Your task to perform on an android device: Open the stopwatch Image 0: 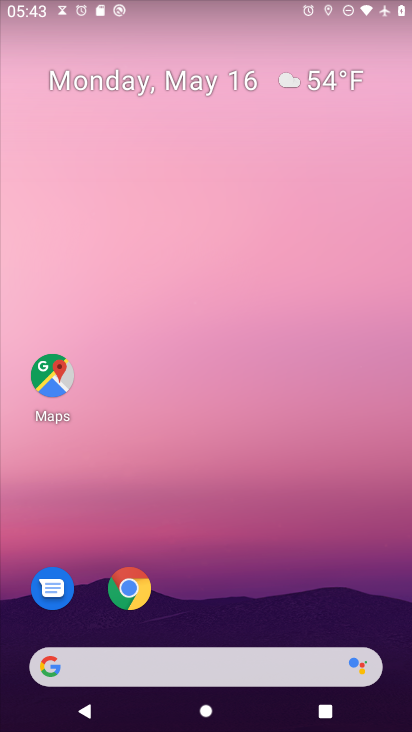
Step 0: drag from (262, 516) to (248, 43)
Your task to perform on an android device: Open the stopwatch Image 1: 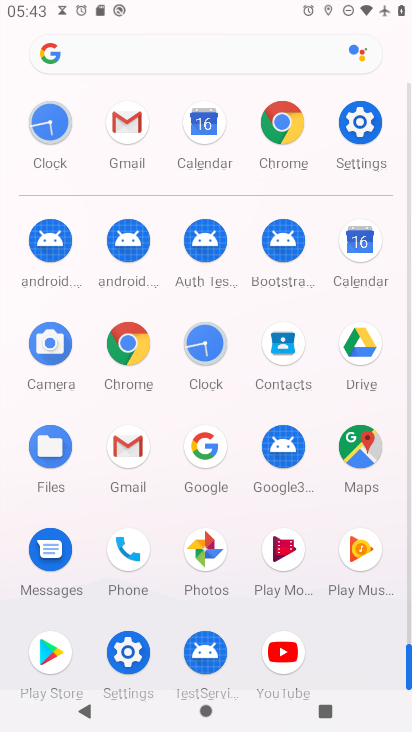
Step 1: drag from (15, 530) to (22, 225)
Your task to perform on an android device: Open the stopwatch Image 2: 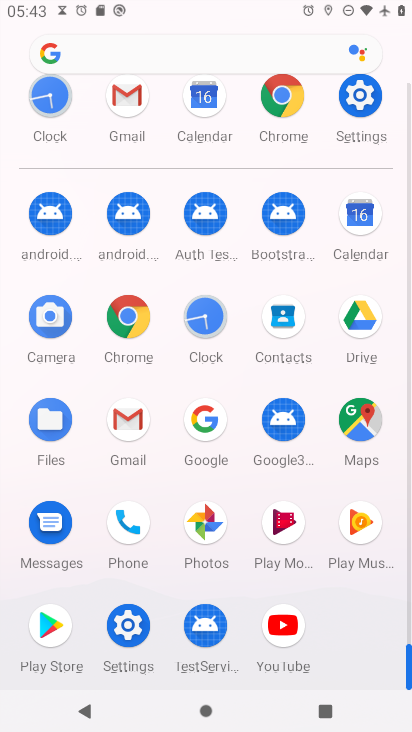
Step 2: click (203, 313)
Your task to perform on an android device: Open the stopwatch Image 3: 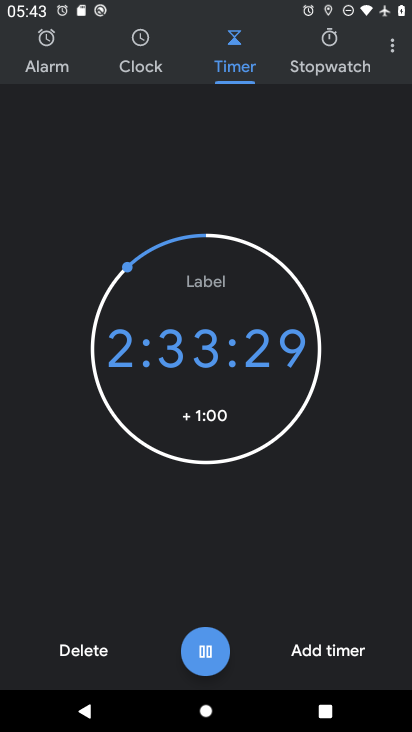
Step 3: click (324, 42)
Your task to perform on an android device: Open the stopwatch Image 4: 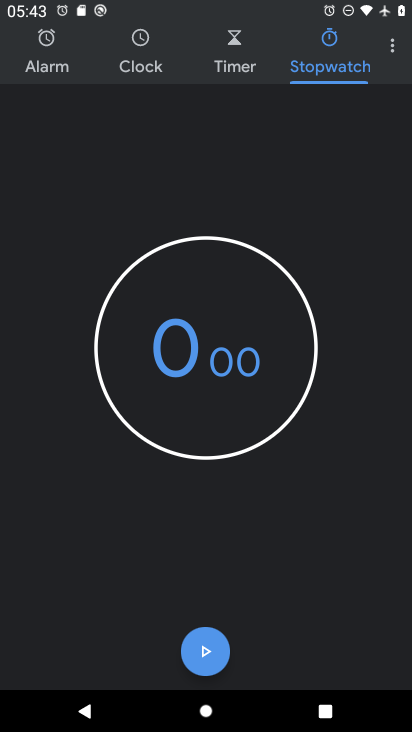
Step 4: task complete